Your task to perform on an android device: turn on wifi Image 0: 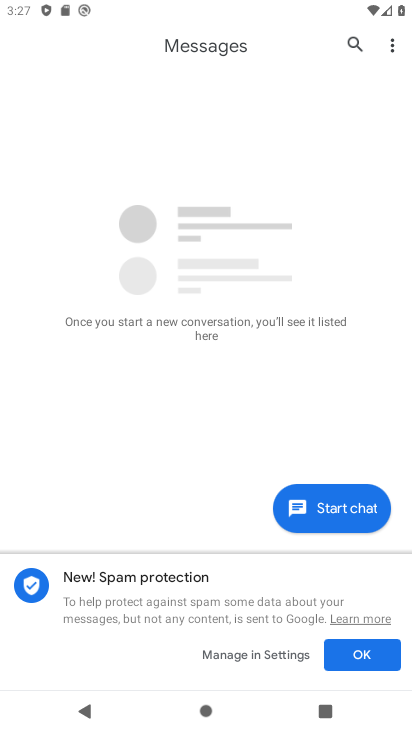
Step 0: drag from (358, 3) to (331, 498)
Your task to perform on an android device: turn on wifi Image 1: 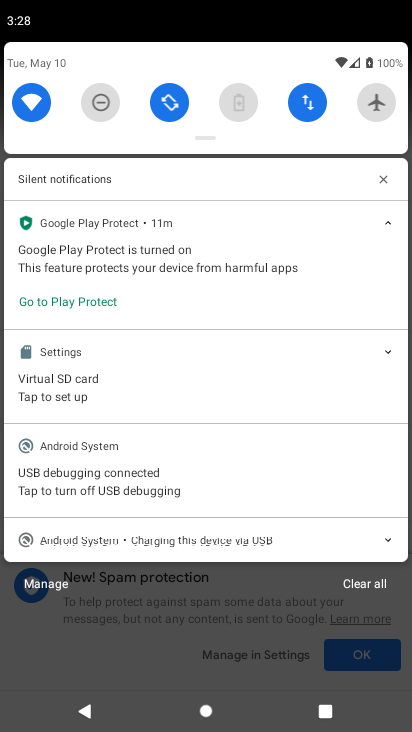
Step 1: task complete